Your task to perform on an android device: Open the calendar app, open the side menu, and click the "Day" option Image 0: 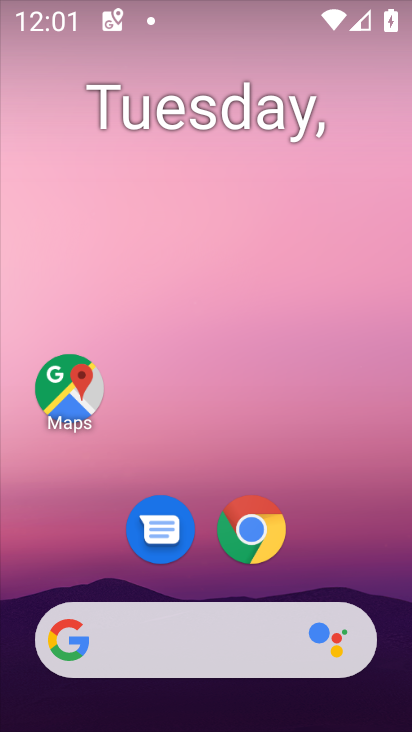
Step 0: drag from (231, 664) to (236, 142)
Your task to perform on an android device: Open the calendar app, open the side menu, and click the "Day" option Image 1: 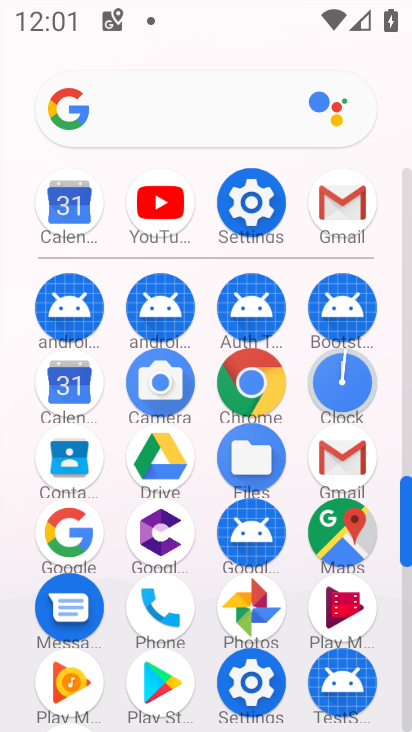
Step 1: click (70, 386)
Your task to perform on an android device: Open the calendar app, open the side menu, and click the "Day" option Image 2: 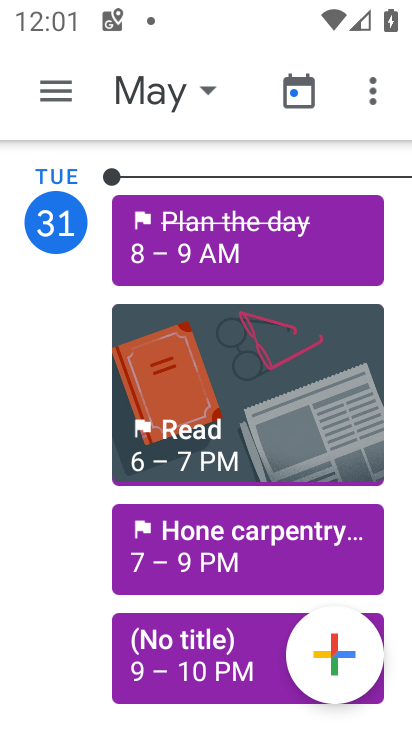
Step 2: click (48, 107)
Your task to perform on an android device: Open the calendar app, open the side menu, and click the "Day" option Image 3: 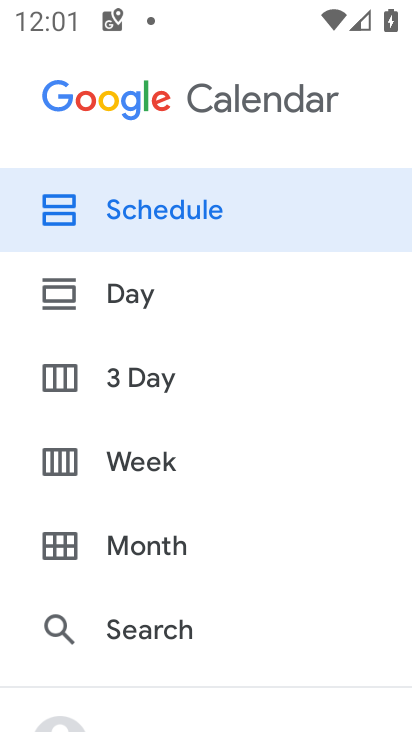
Step 3: click (113, 291)
Your task to perform on an android device: Open the calendar app, open the side menu, and click the "Day" option Image 4: 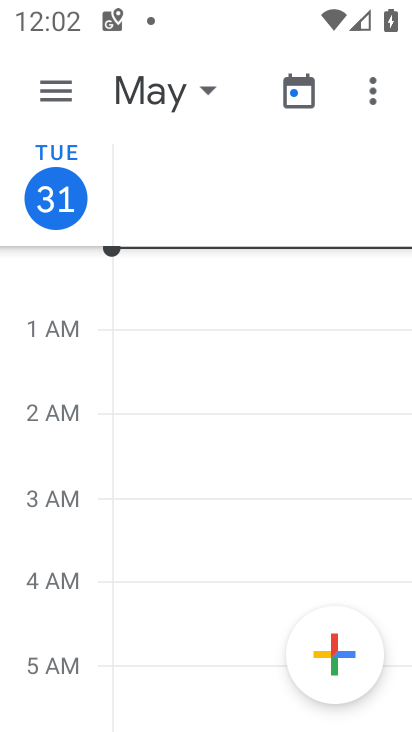
Step 4: task complete